Your task to perform on an android device: open a bookmark in the chrome app Image 0: 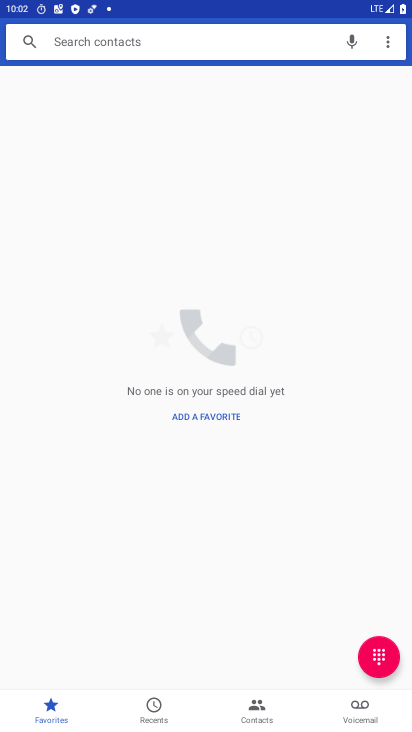
Step 0: press home button
Your task to perform on an android device: open a bookmark in the chrome app Image 1: 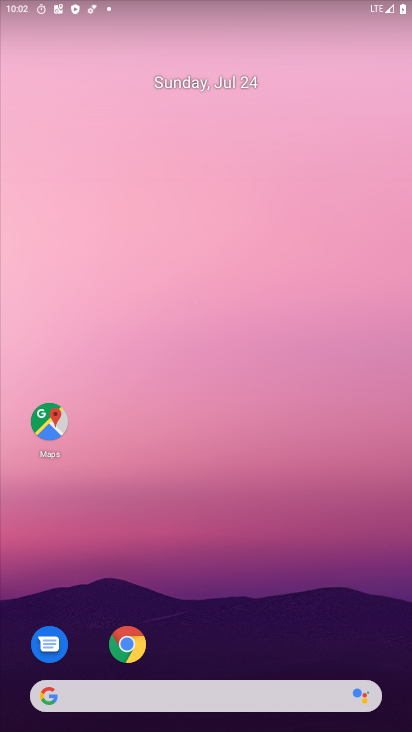
Step 1: click (137, 638)
Your task to perform on an android device: open a bookmark in the chrome app Image 2: 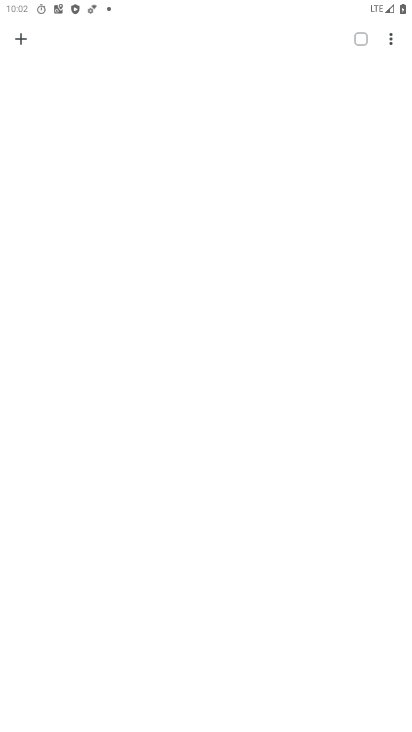
Step 2: click (387, 42)
Your task to perform on an android device: open a bookmark in the chrome app Image 3: 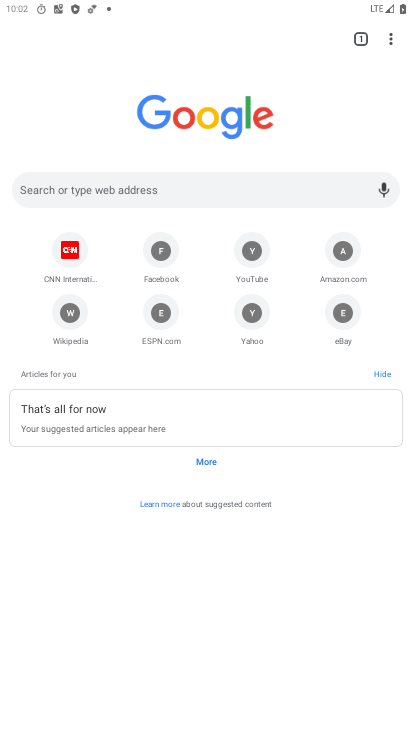
Step 3: click (387, 42)
Your task to perform on an android device: open a bookmark in the chrome app Image 4: 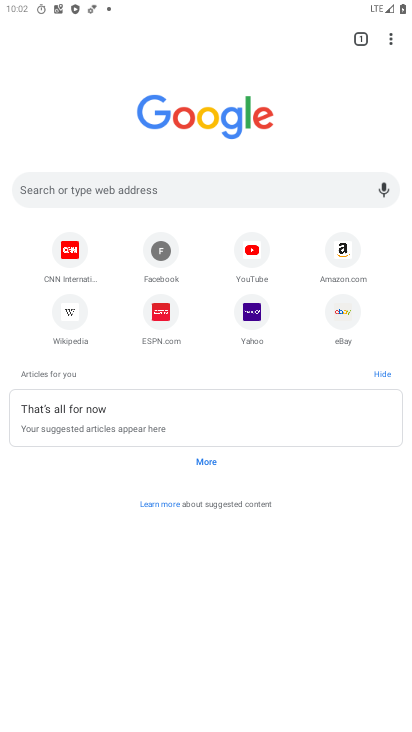
Step 4: click (387, 41)
Your task to perform on an android device: open a bookmark in the chrome app Image 5: 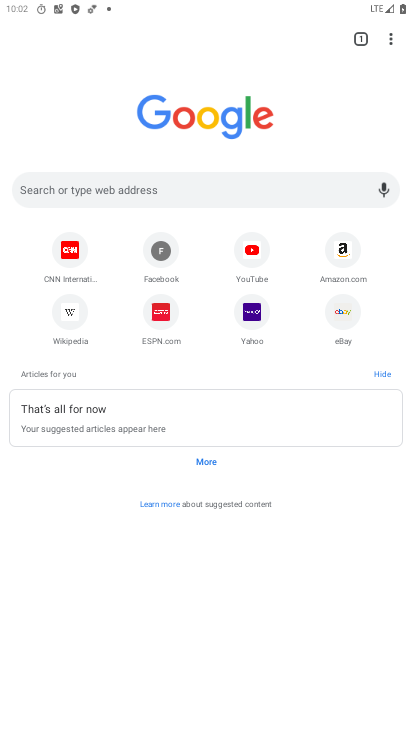
Step 5: click (387, 41)
Your task to perform on an android device: open a bookmark in the chrome app Image 6: 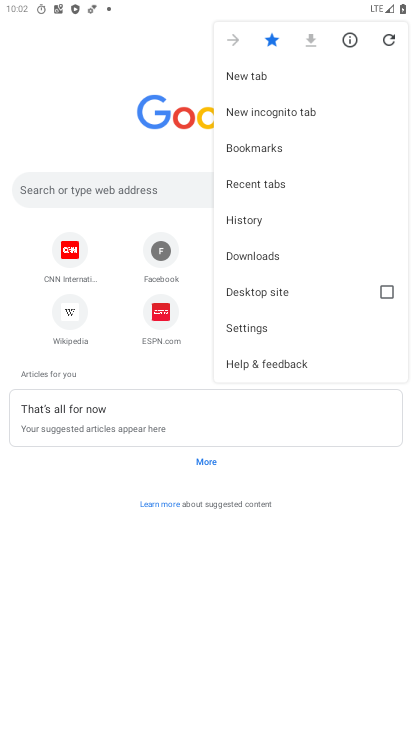
Step 6: click (249, 146)
Your task to perform on an android device: open a bookmark in the chrome app Image 7: 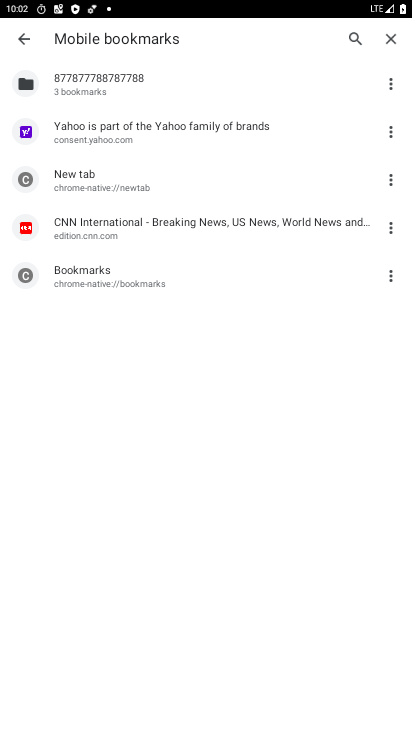
Step 7: task complete